Your task to perform on an android device: Go to Google Image 0: 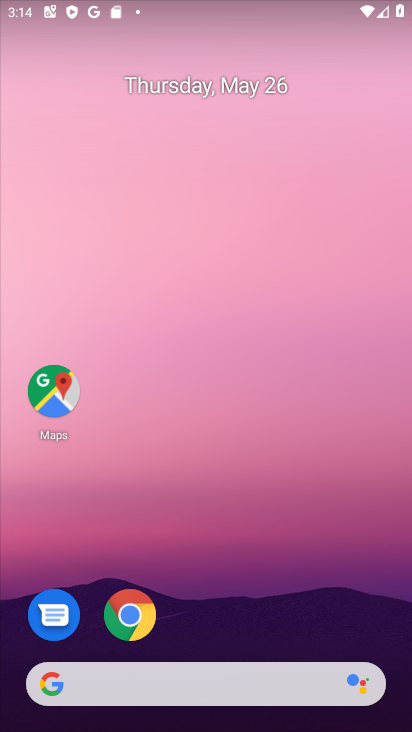
Step 0: click (175, 700)
Your task to perform on an android device: Go to Google Image 1: 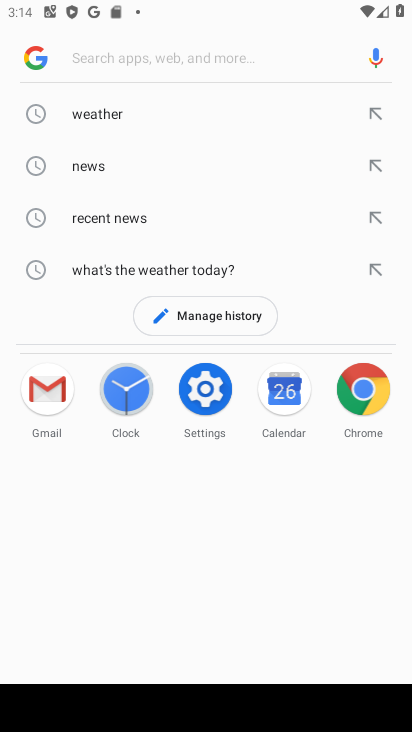
Step 1: task complete